Your task to perform on an android device: check storage Image 0: 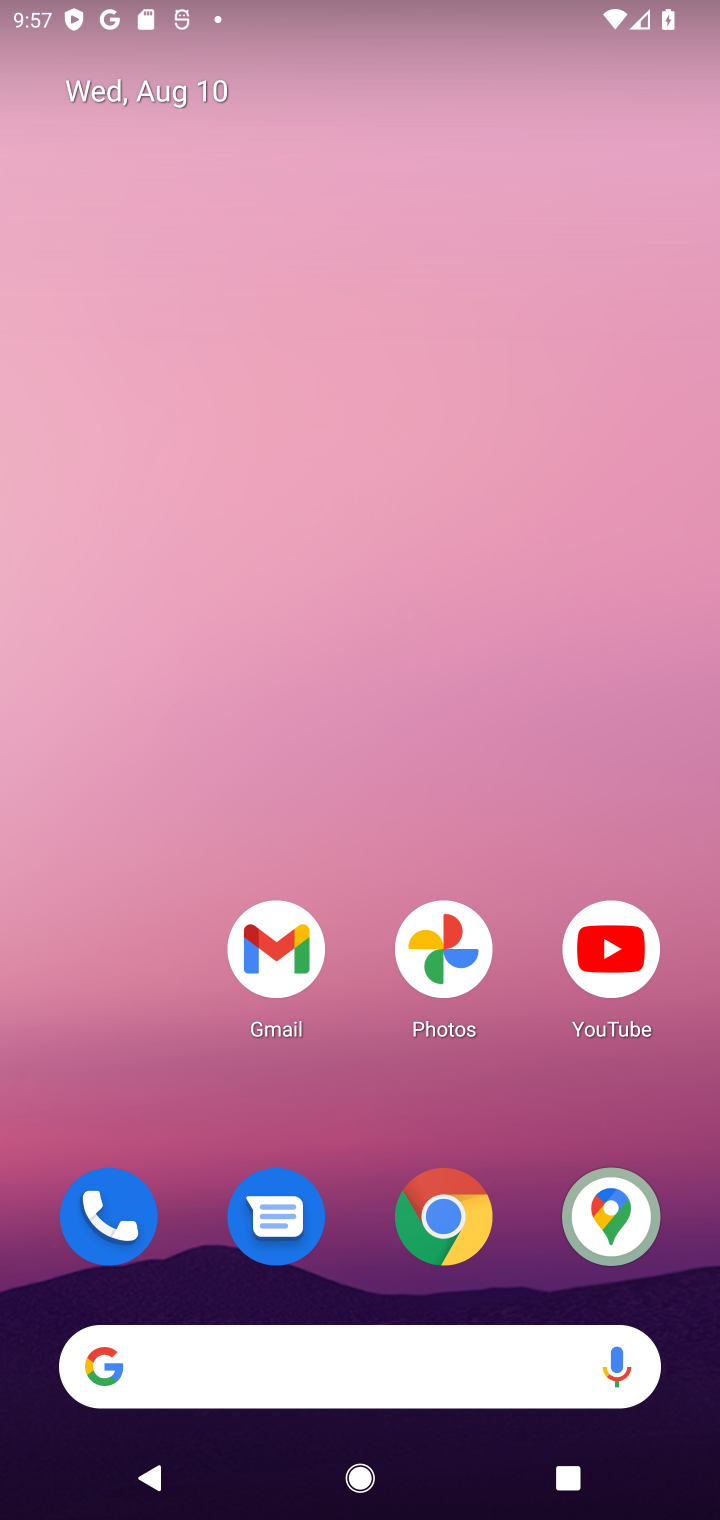
Step 0: drag from (228, 927) to (312, 278)
Your task to perform on an android device: check storage Image 1: 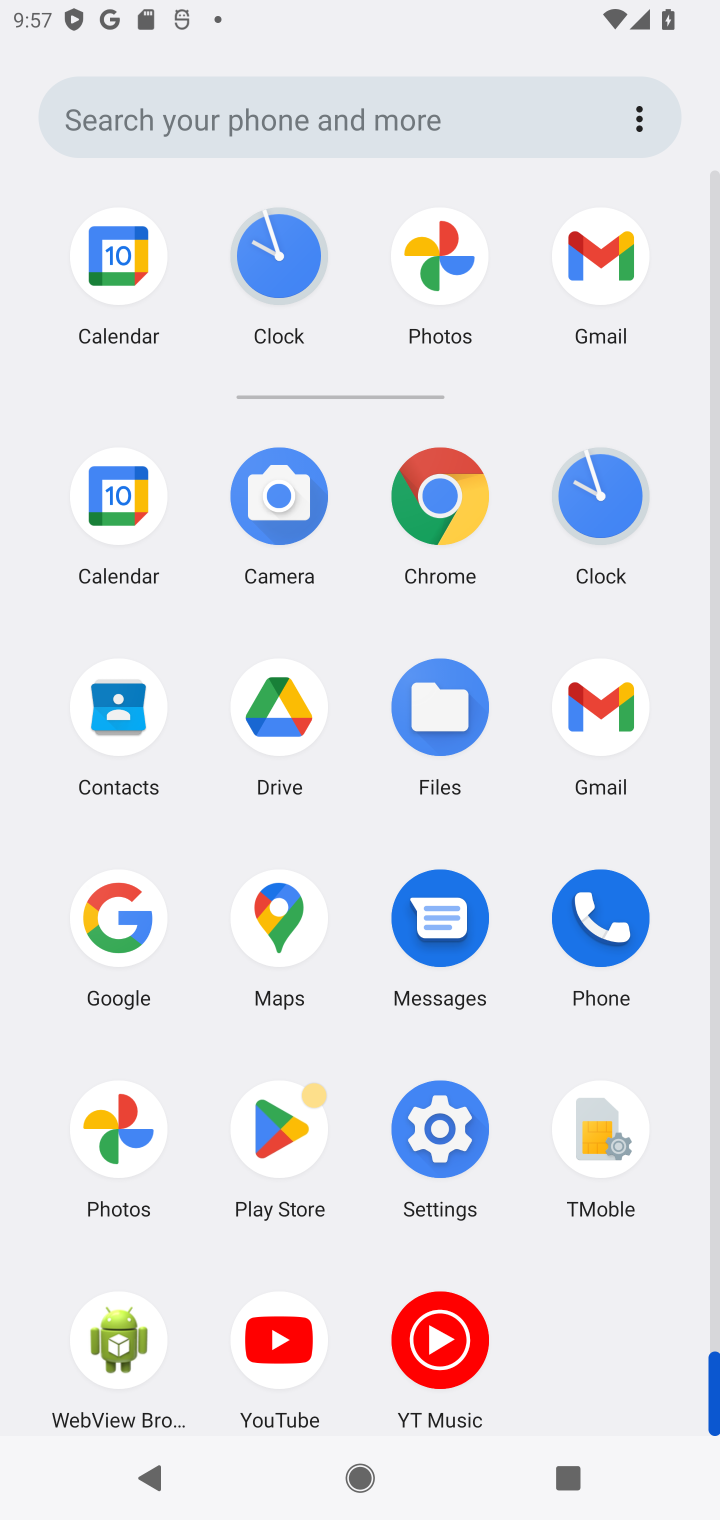
Step 1: click (440, 1127)
Your task to perform on an android device: check storage Image 2: 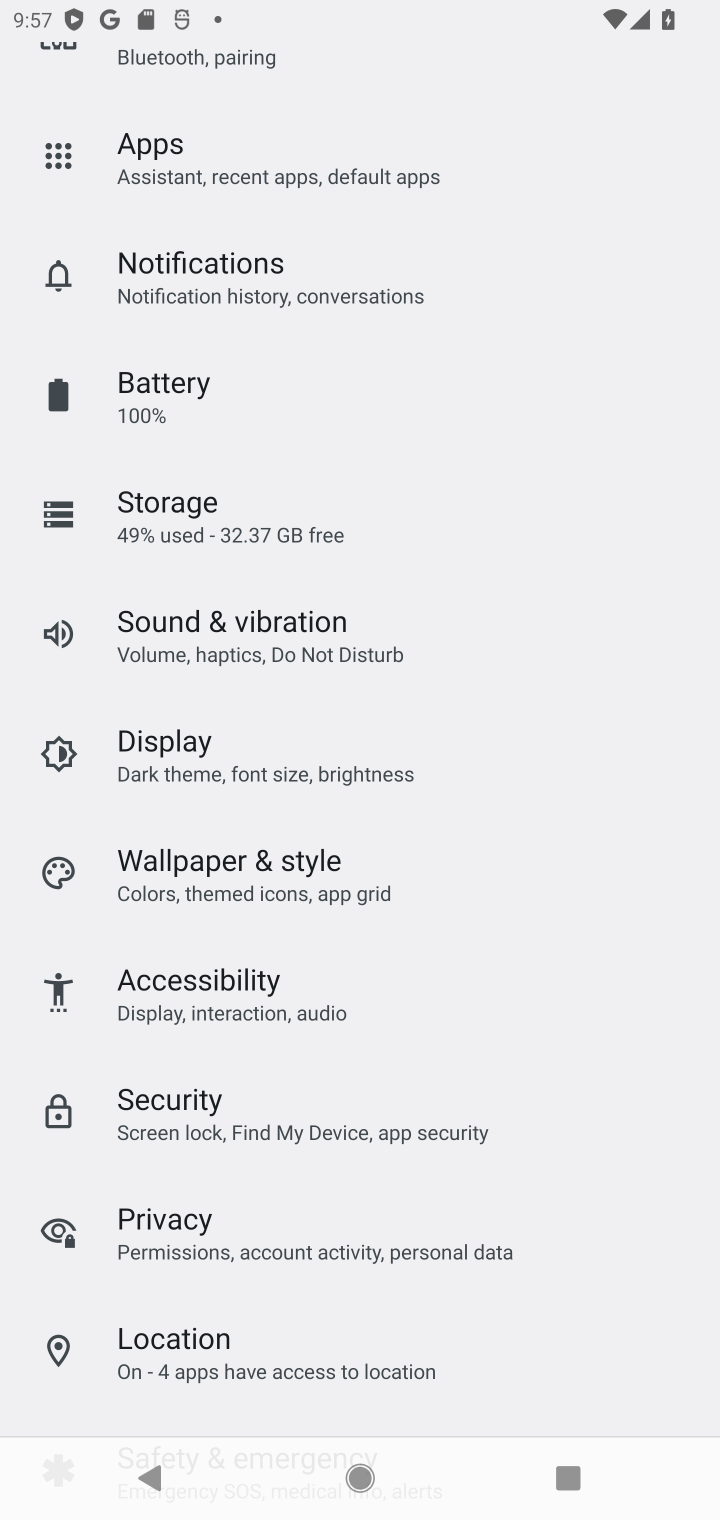
Step 2: click (160, 523)
Your task to perform on an android device: check storage Image 3: 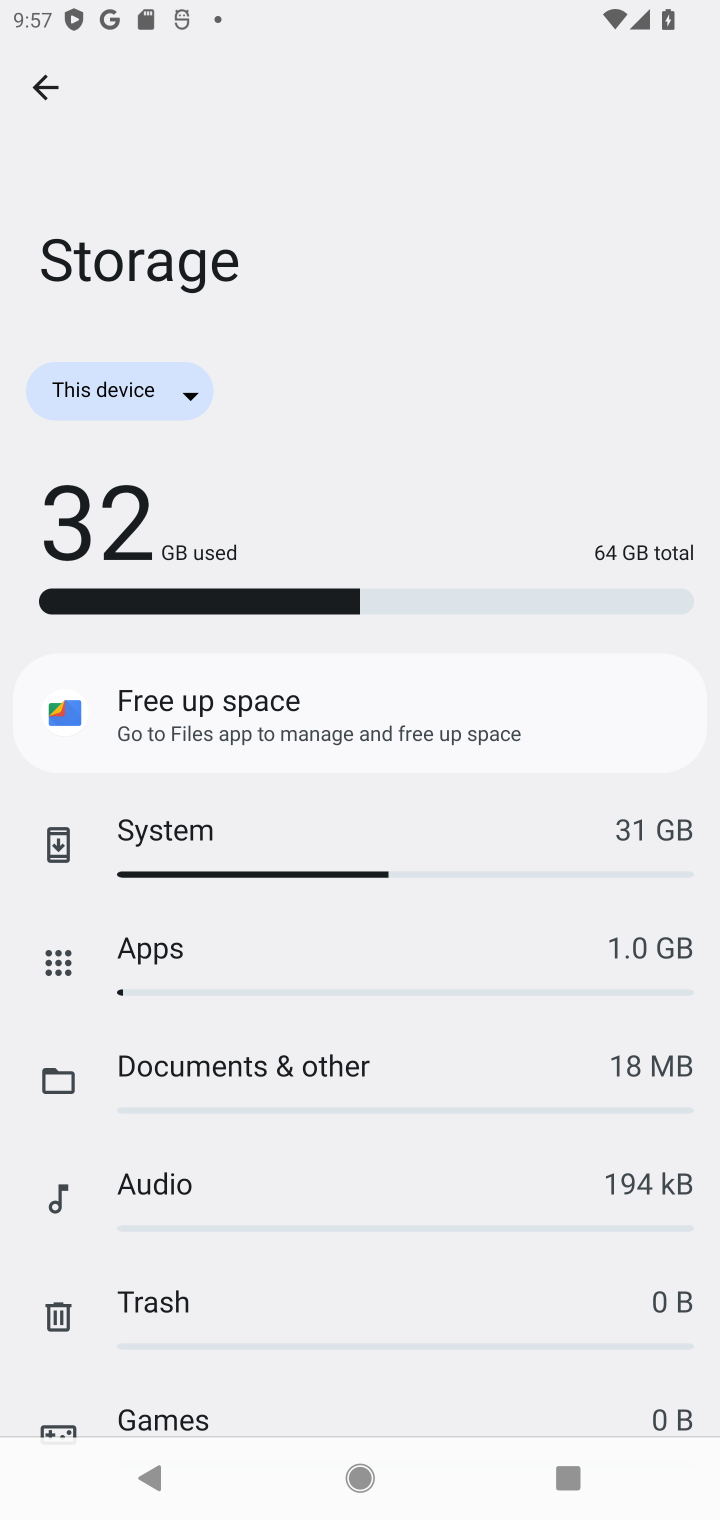
Step 3: task complete